Your task to perform on an android device: turn vacation reply on in the gmail app Image 0: 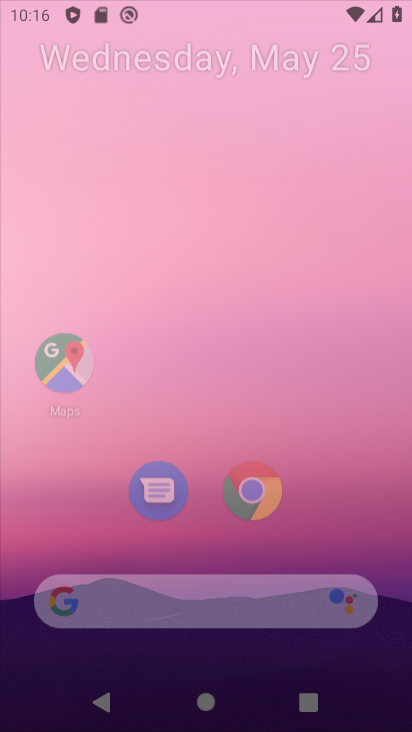
Step 0: click (240, 111)
Your task to perform on an android device: turn vacation reply on in the gmail app Image 1: 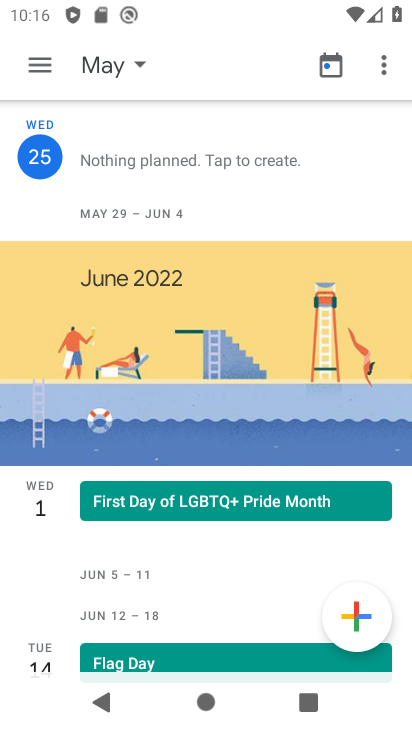
Step 1: press home button
Your task to perform on an android device: turn vacation reply on in the gmail app Image 2: 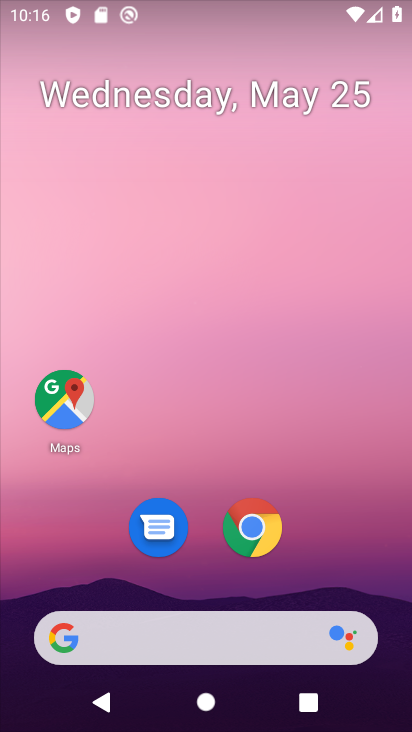
Step 2: drag from (395, 586) to (198, 62)
Your task to perform on an android device: turn vacation reply on in the gmail app Image 3: 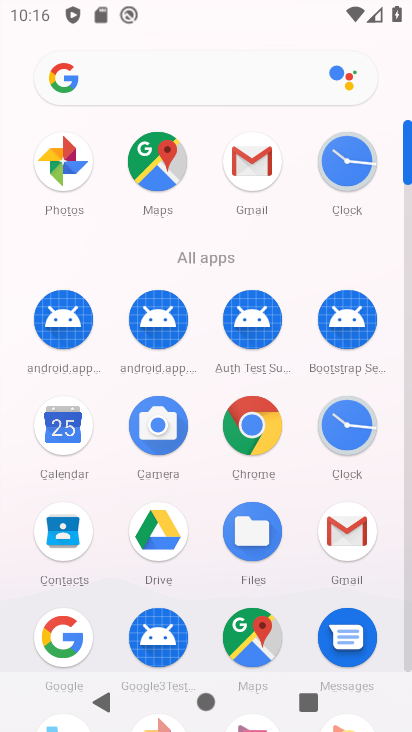
Step 3: click (262, 153)
Your task to perform on an android device: turn vacation reply on in the gmail app Image 4: 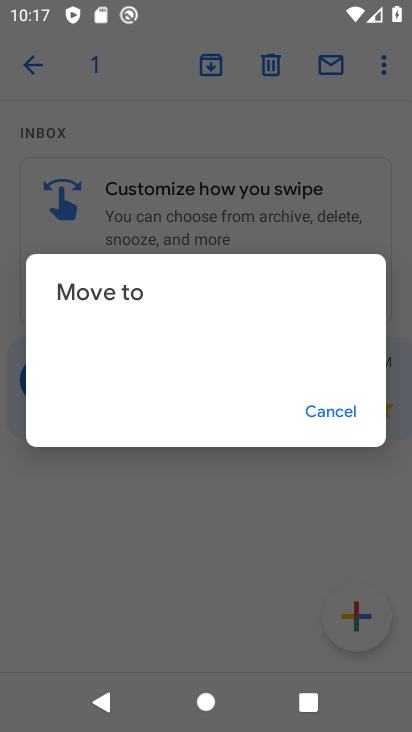
Step 4: click (342, 410)
Your task to perform on an android device: turn vacation reply on in the gmail app Image 5: 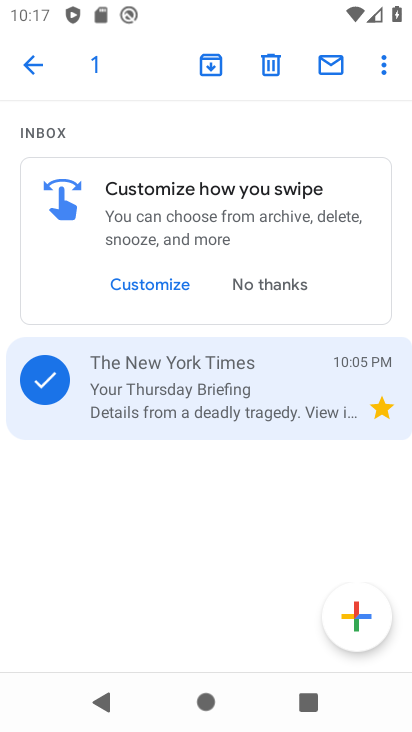
Step 5: click (15, 63)
Your task to perform on an android device: turn vacation reply on in the gmail app Image 6: 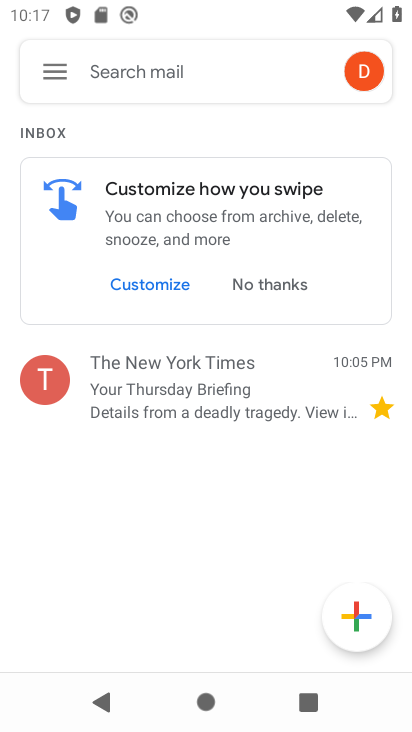
Step 6: click (15, 63)
Your task to perform on an android device: turn vacation reply on in the gmail app Image 7: 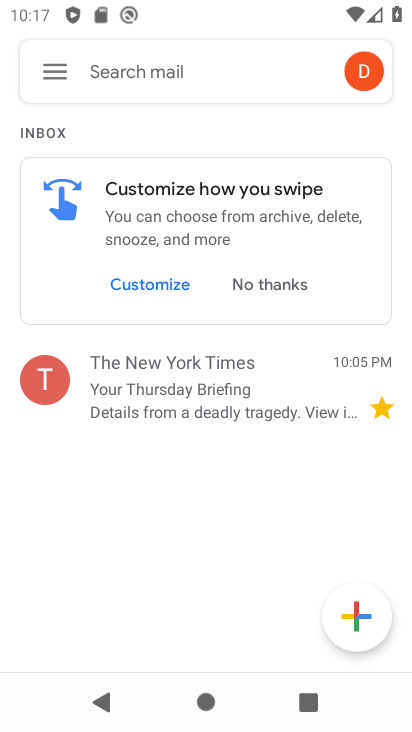
Step 7: click (43, 75)
Your task to perform on an android device: turn vacation reply on in the gmail app Image 8: 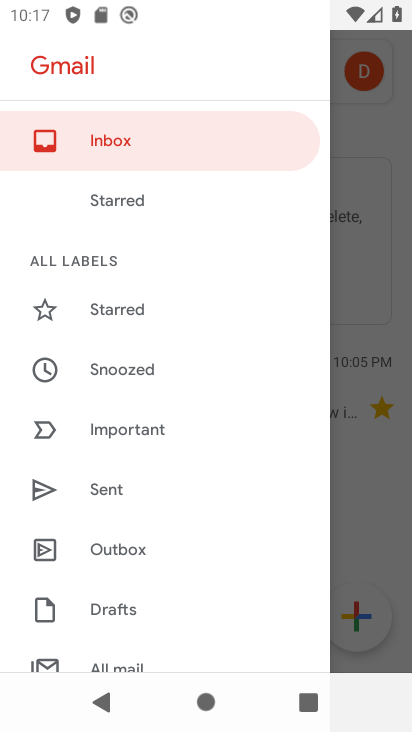
Step 8: drag from (180, 630) to (176, 230)
Your task to perform on an android device: turn vacation reply on in the gmail app Image 9: 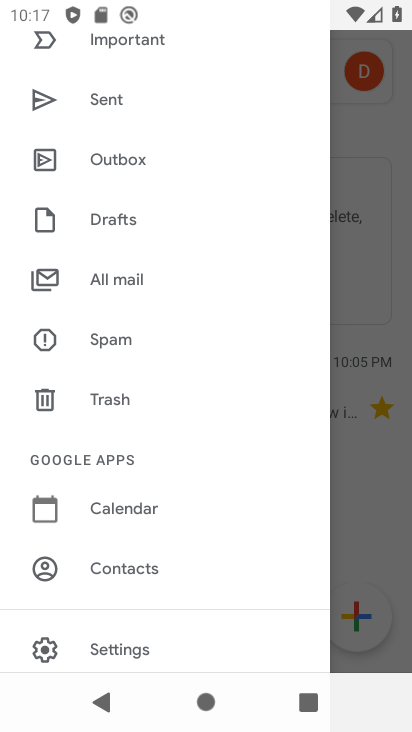
Step 9: click (168, 642)
Your task to perform on an android device: turn vacation reply on in the gmail app Image 10: 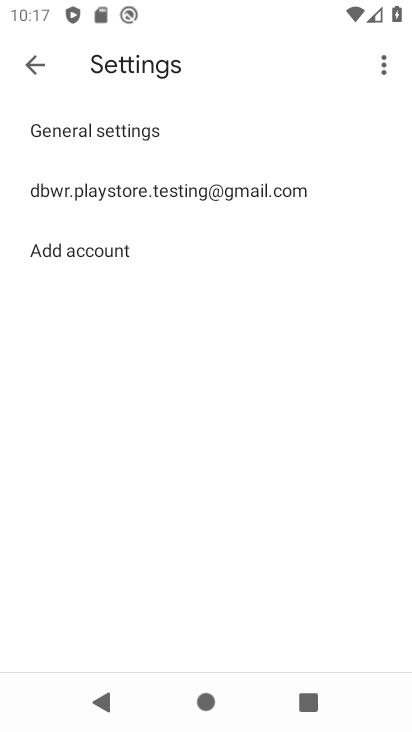
Step 10: click (190, 187)
Your task to perform on an android device: turn vacation reply on in the gmail app Image 11: 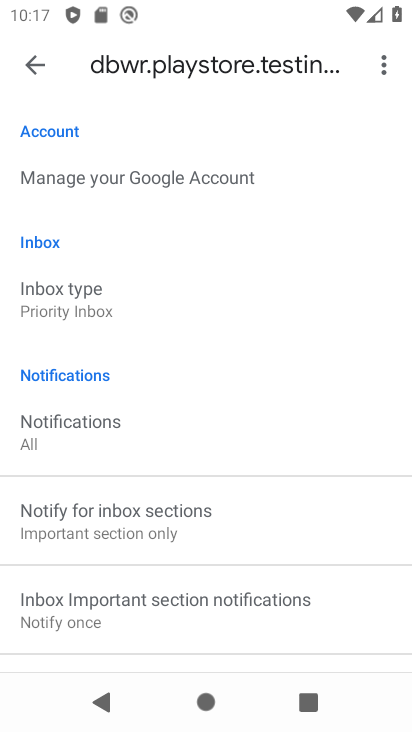
Step 11: drag from (214, 579) to (237, 146)
Your task to perform on an android device: turn vacation reply on in the gmail app Image 12: 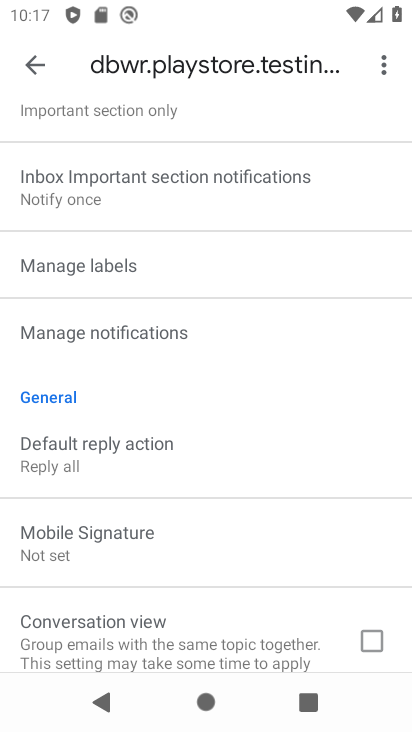
Step 12: drag from (217, 580) to (173, 216)
Your task to perform on an android device: turn vacation reply on in the gmail app Image 13: 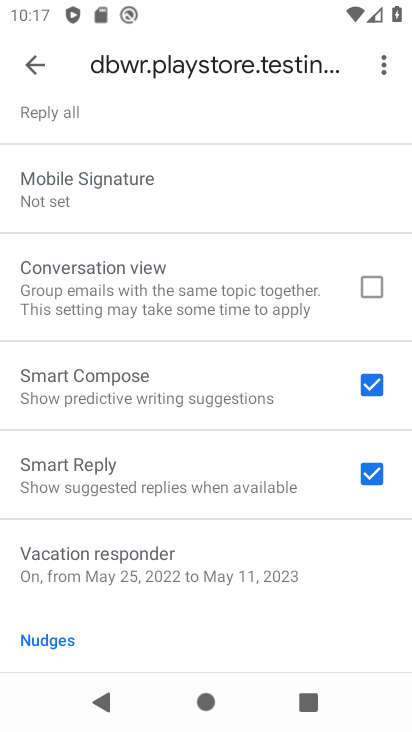
Step 13: click (207, 589)
Your task to perform on an android device: turn vacation reply on in the gmail app Image 14: 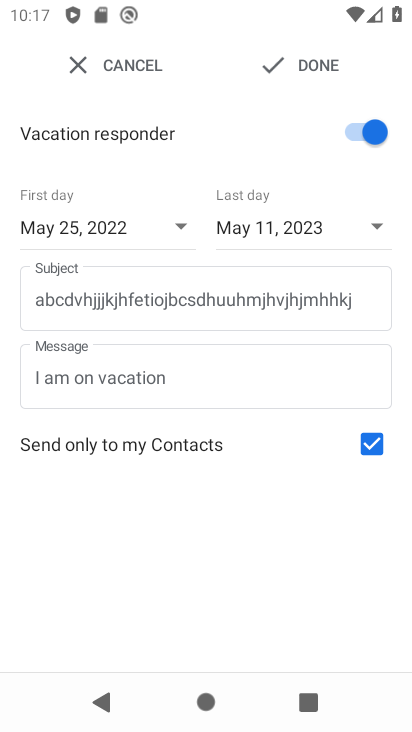
Step 14: click (307, 63)
Your task to perform on an android device: turn vacation reply on in the gmail app Image 15: 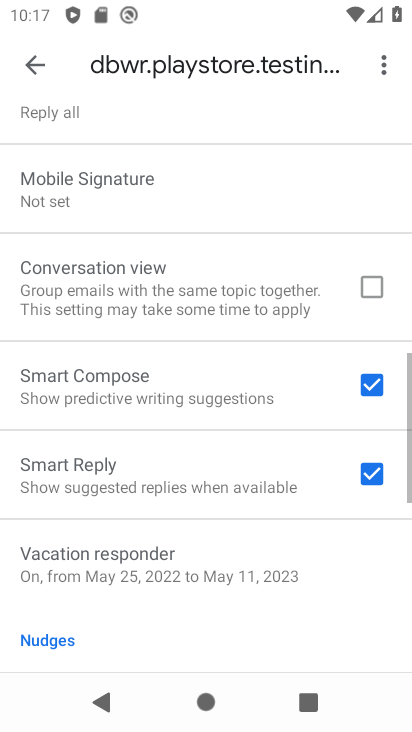
Step 15: task complete